Your task to perform on an android device: Open internet settings Image 0: 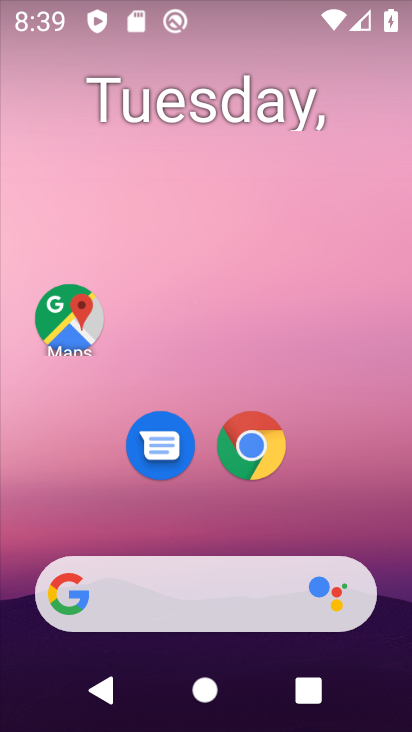
Step 0: drag from (47, 568) to (271, 156)
Your task to perform on an android device: Open internet settings Image 1: 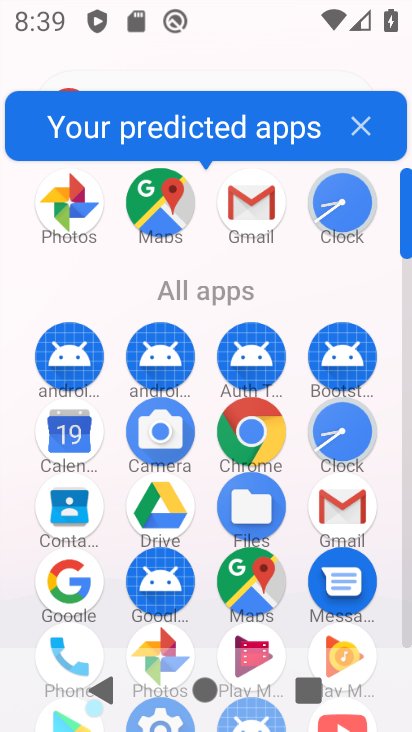
Step 1: click (362, 122)
Your task to perform on an android device: Open internet settings Image 2: 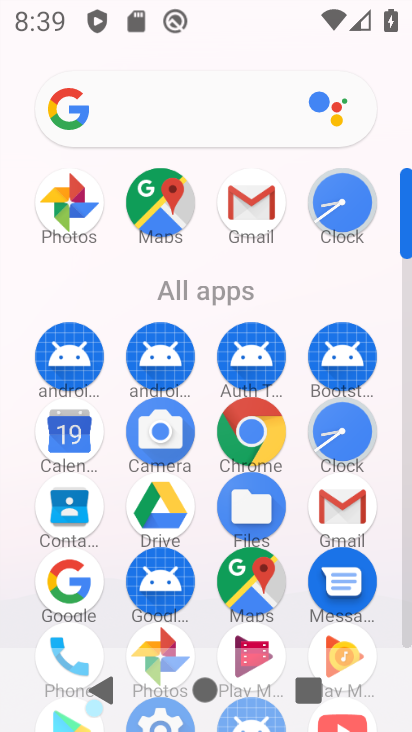
Step 2: drag from (53, 301) to (122, 155)
Your task to perform on an android device: Open internet settings Image 3: 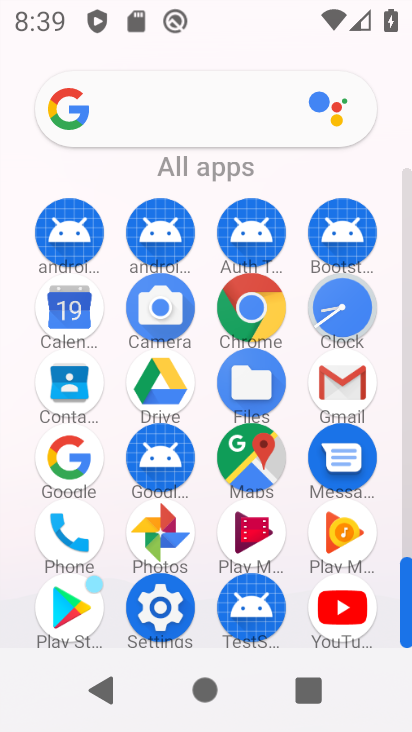
Step 3: click (152, 618)
Your task to perform on an android device: Open internet settings Image 4: 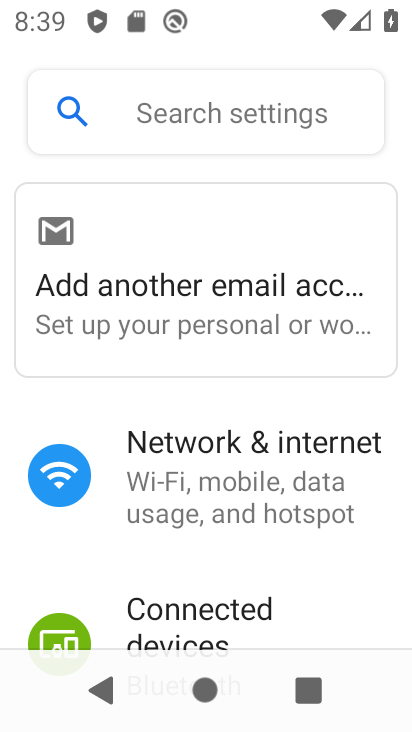
Step 4: click (174, 464)
Your task to perform on an android device: Open internet settings Image 5: 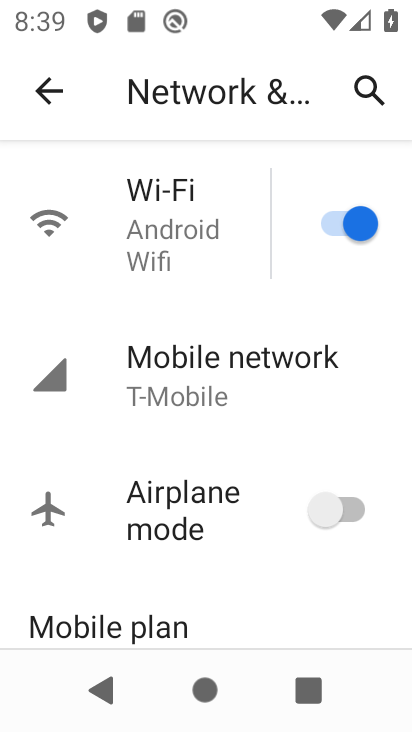
Step 5: task complete